Your task to perform on an android device: Go to network settings Image 0: 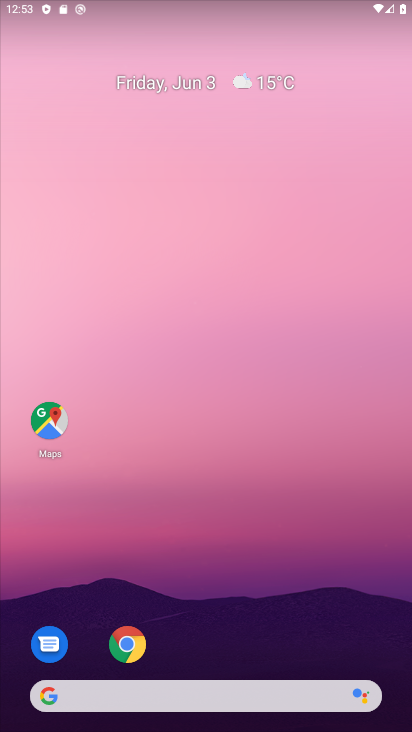
Step 0: drag from (196, 649) to (372, 1)
Your task to perform on an android device: Go to network settings Image 1: 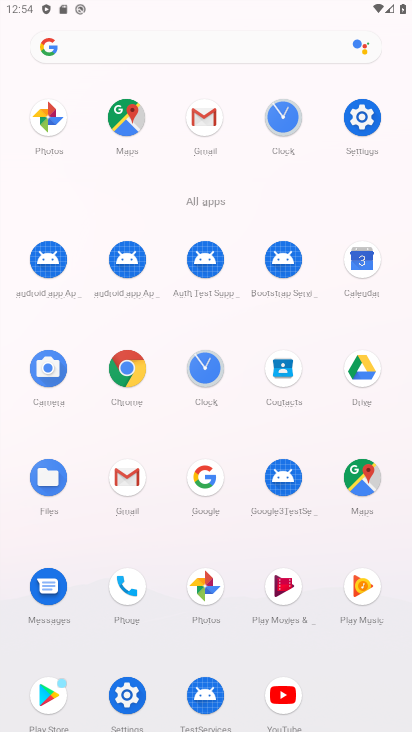
Step 1: click (362, 167)
Your task to perform on an android device: Go to network settings Image 2: 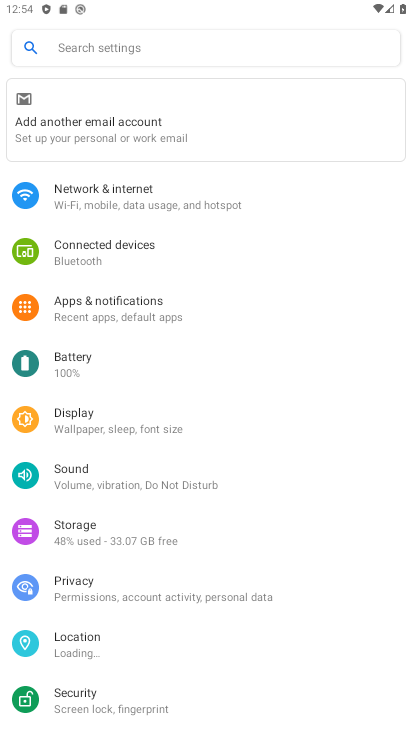
Step 2: click (114, 204)
Your task to perform on an android device: Go to network settings Image 3: 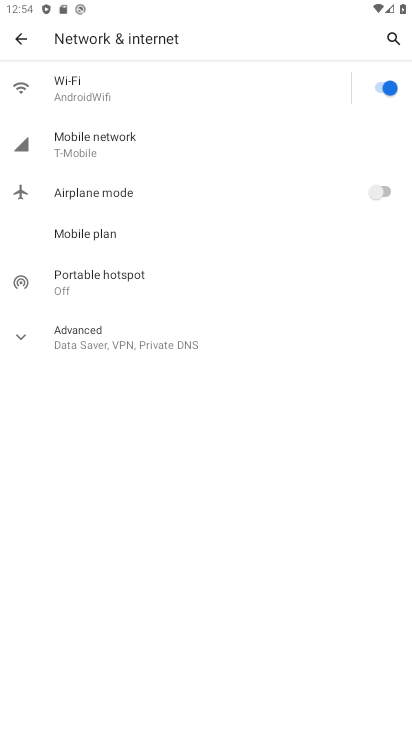
Step 3: task complete